Your task to perform on an android device: Show me recent news Image 0: 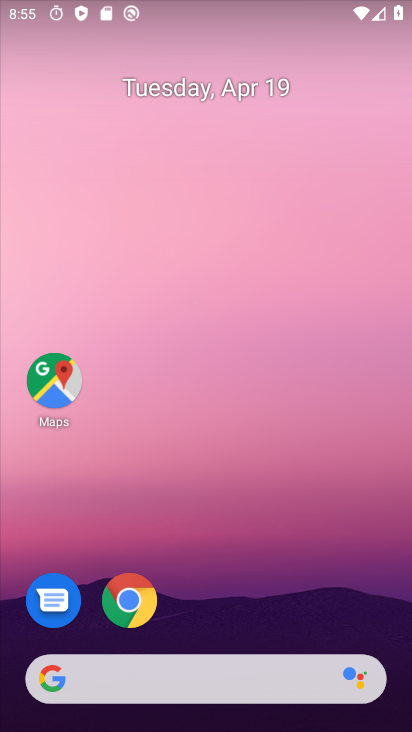
Step 0: click (162, 682)
Your task to perform on an android device: Show me recent news Image 1: 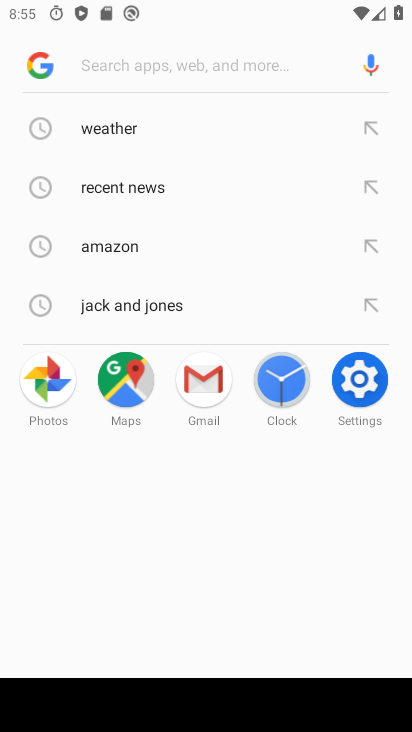
Step 1: click (138, 196)
Your task to perform on an android device: Show me recent news Image 2: 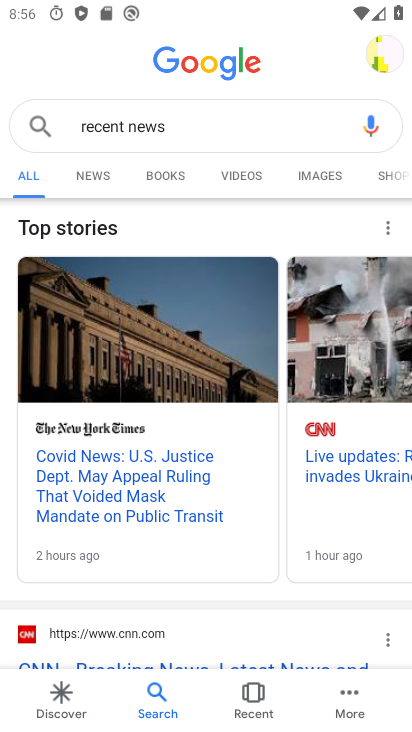
Step 2: task complete